Your task to perform on an android device: toggle javascript in the chrome app Image 0: 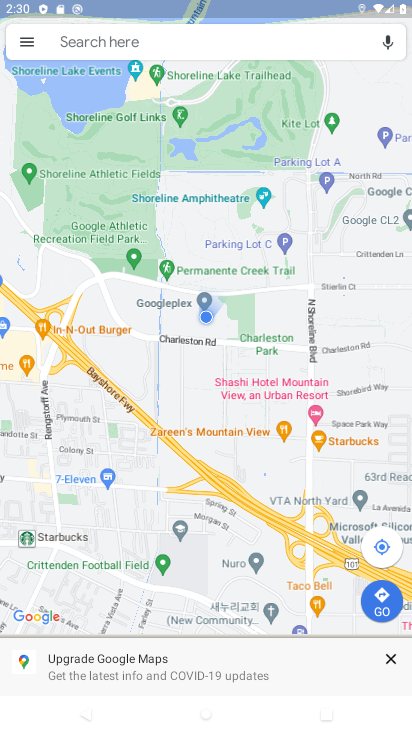
Step 0: press back button
Your task to perform on an android device: toggle javascript in the chrome app Image 1: 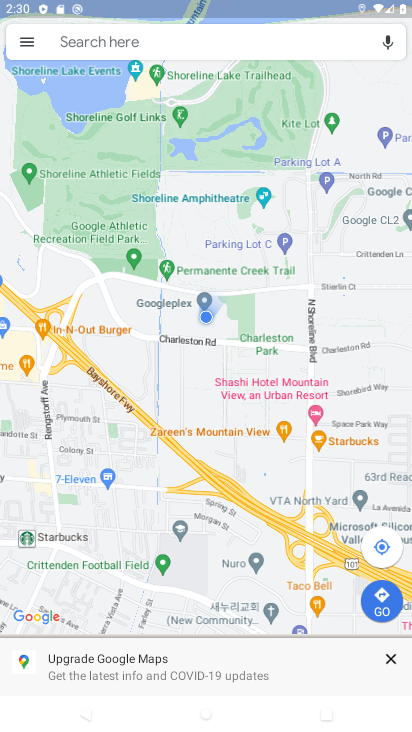
Step 1: press back button
Your task to perform on an android device: toggle javascript in the chrome app Image 2: 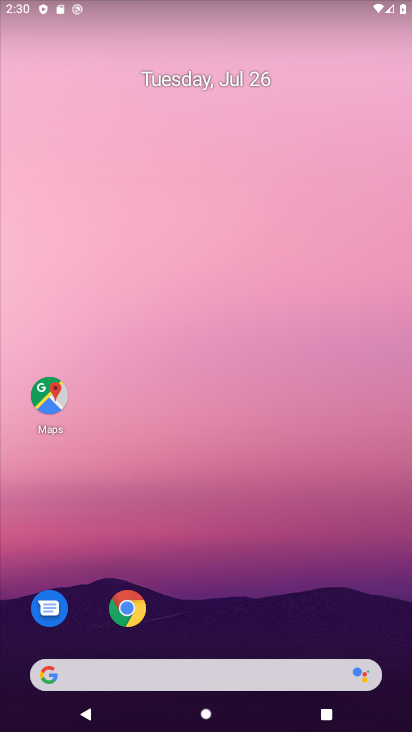
Step 2: drag from (231, 496) to (238, 64)
Your task to perform on an android device: toggle javascript in the chrome app Image 3: 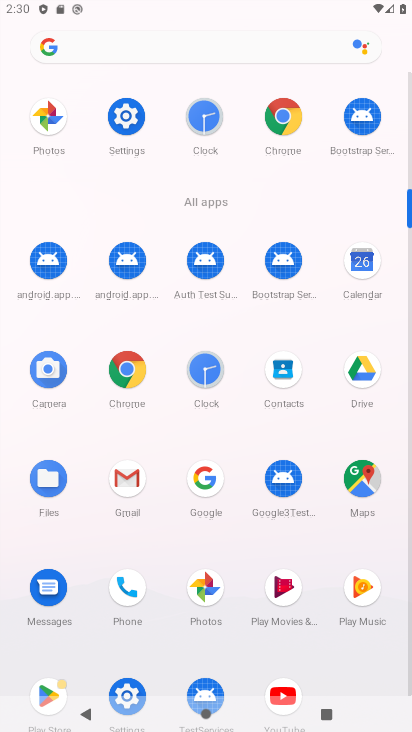
Step 3: click (283, 121)
Your task to perform on an android device: toggle javascript in the chrome app Image 4: 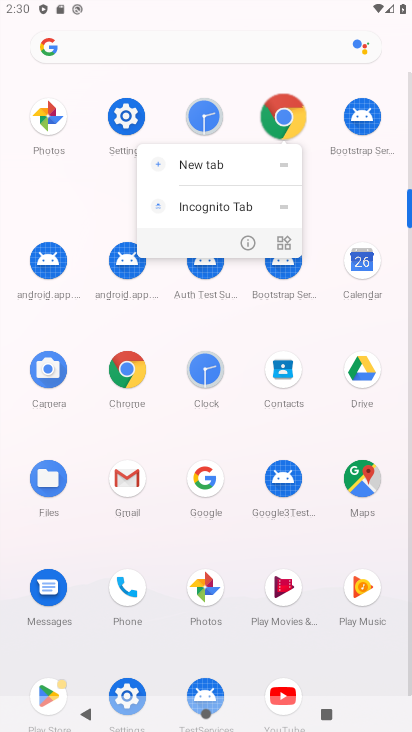
Step 4: click (283, 121)
Your task to perform on an android device: toggle javascript in the chrome app Image 5: 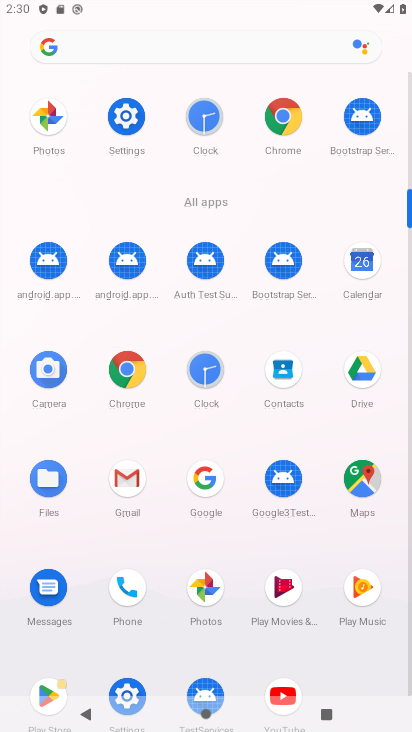
Step 5: click (283, 121)
Your task to perform on an android device: toggle javascript in the chrome app Image 6: 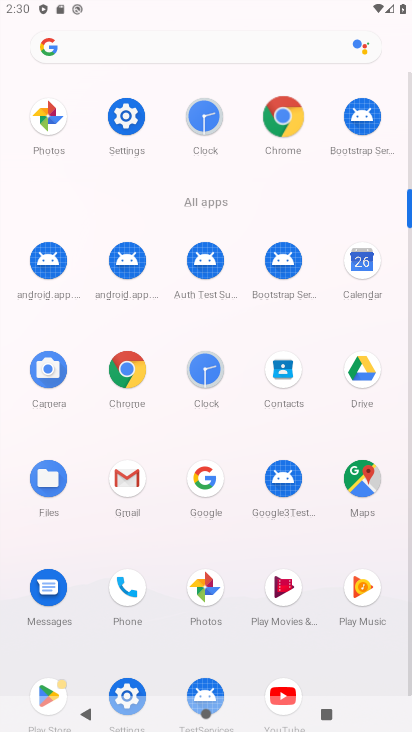
Step 6: click (285, 124)
Your task to perform on an android device: toggle javascript in the chrome app Image 7: 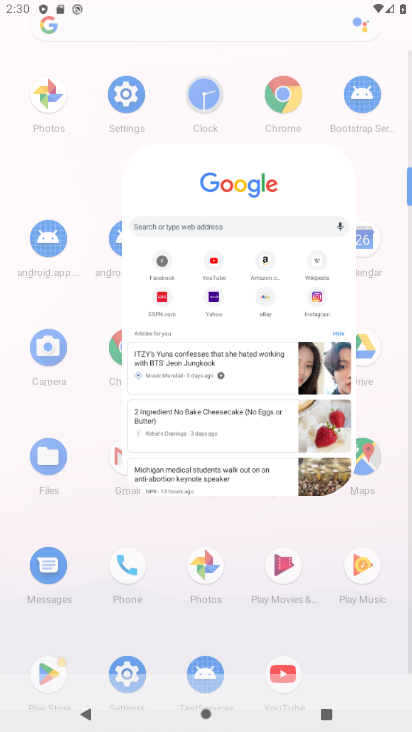
Step 7: click (285, 124)
Your task to perform on an android device: toggle javascript in the chrome app Image 8: 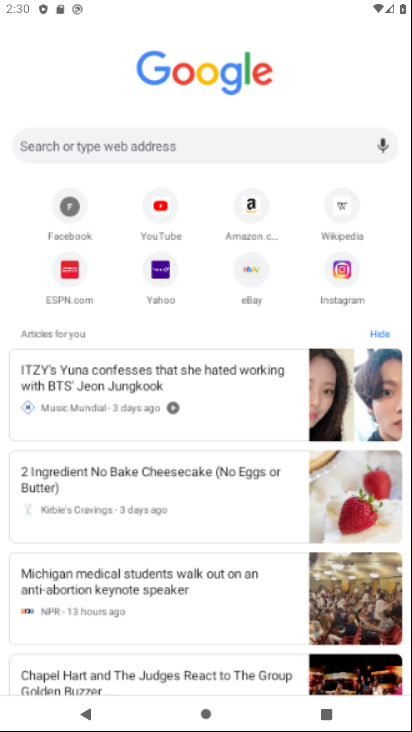
Step 8: click (285, 122)
Your task to perform on an android device: toggle javascript in the chrome app Image 9: 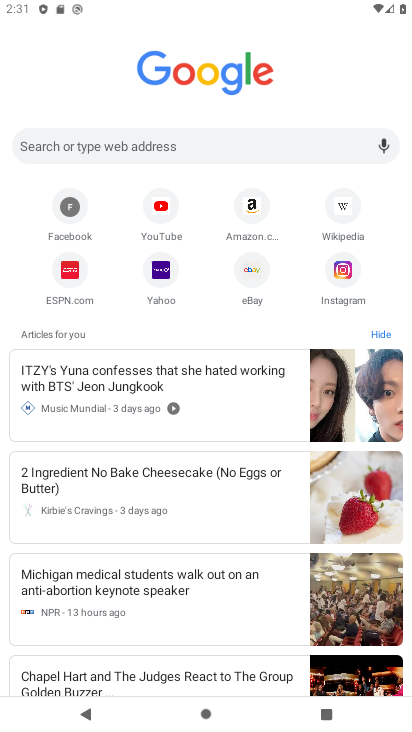
Step 9: drag from (323, 135) to (325, 339)
Your task to perform on an android device: toggle javascript in the chrome app Image 10: 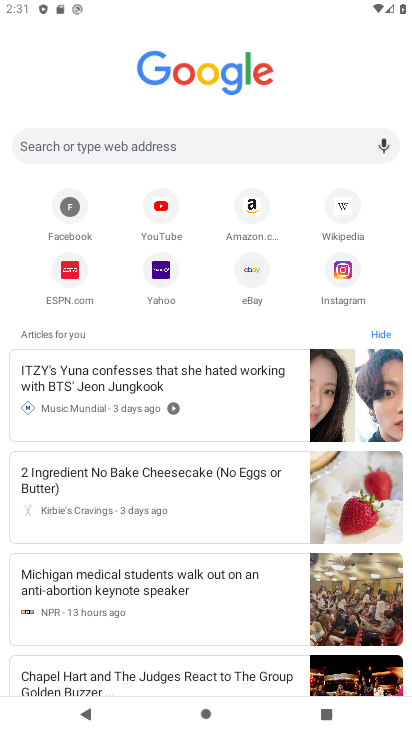
Step 10: drag from (356, 108) to (374, 245)
Your task to perform on an android device: toggle javascript in the chrome app Image 11: 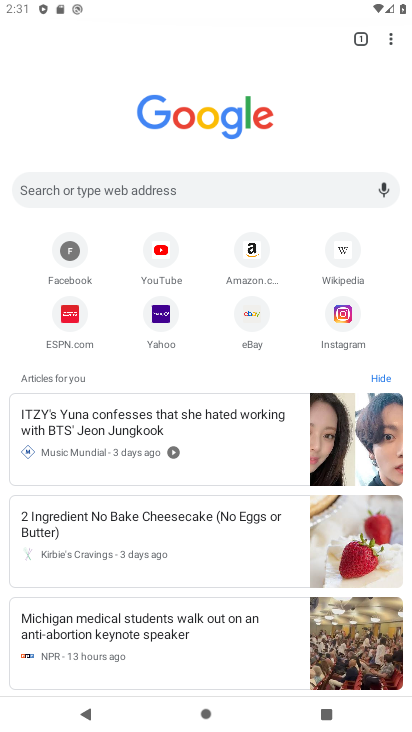
Step 11: drag from (353, 68) to (367, 289)
Your task to perform on an android device: toggle javascript in the chrome app Image 12: 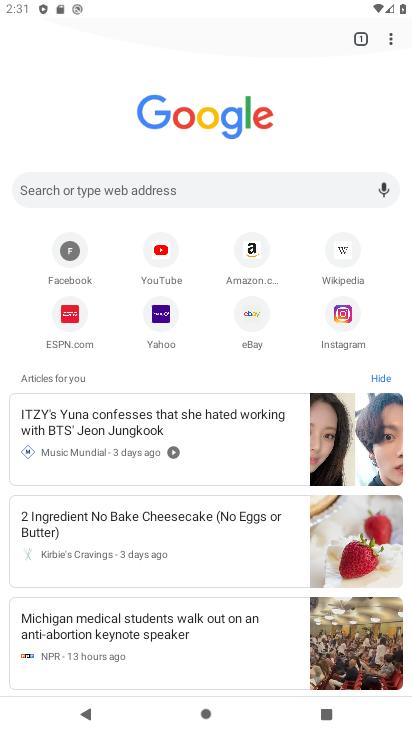
Step 12: click (317, 317)
Your task to perform on an android device: toggle javascript in the chrome app Image 13: 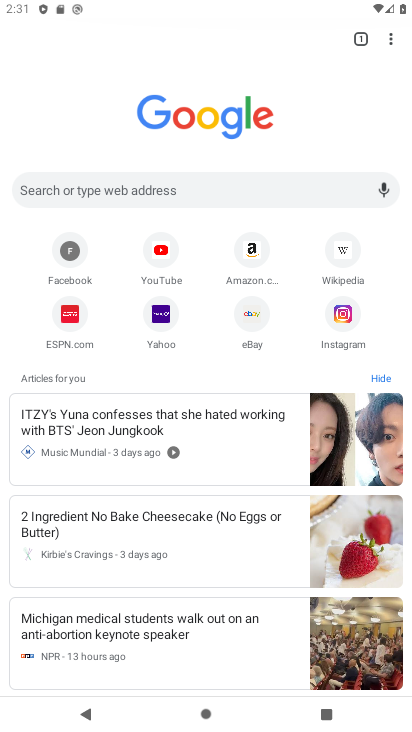
Step 13: drag from (319, 270) to (325, 339)
Your task to perform on an android device: toggle javascript in the chrome app Image 14: 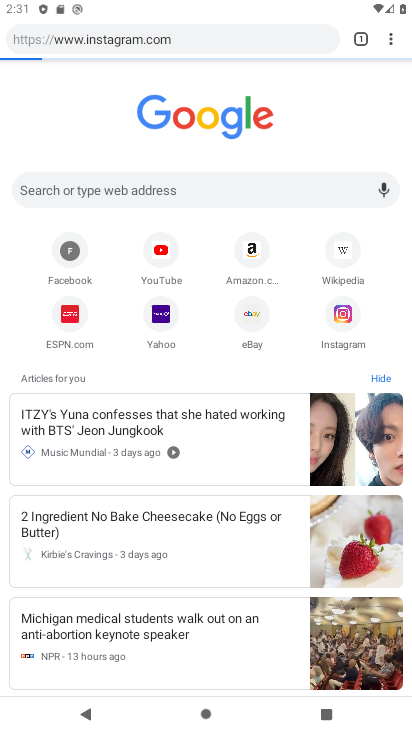
Step 14: click (393, 203)
Your task to perform on an android device: toggle javascript in the chrome app Image 15: 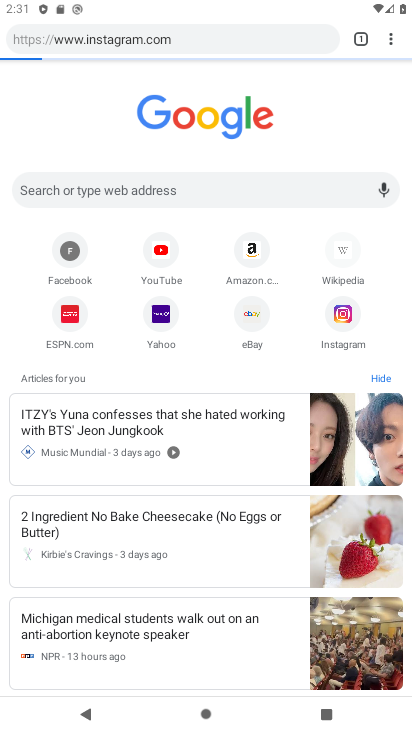
Step 15: click (334, 255)
Your task to perform on an android device: toggle javascript in the chrome app Image 16: 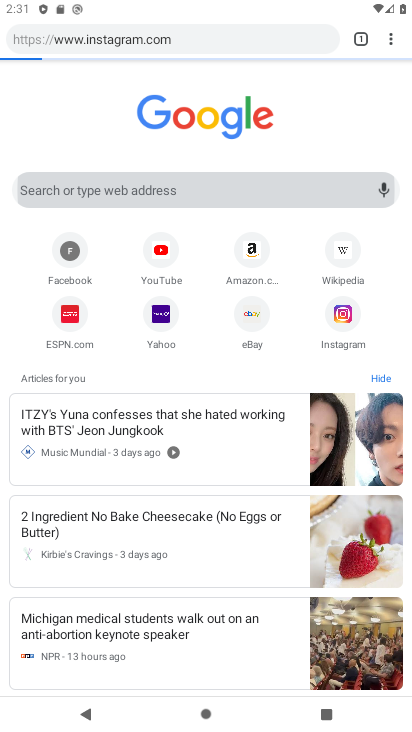
Step 16: drag from (392, 42) to (182, 464)
Your task to perform on an android device: toggle javascript in the chrome app Image 17: 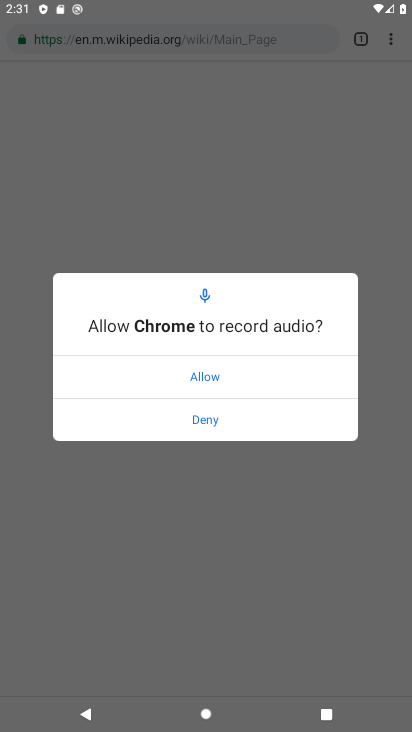
Step 17: click (206, 375)
Your task to perform on an android device: toggle javascript in the chrome app Image 18: 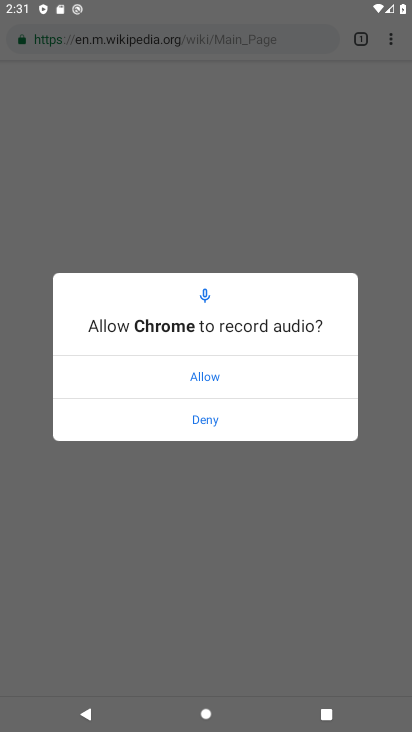
Step 18: click (210, 378)
Your task to perform on an android device: toggle javascript in the chrome app Image 19: 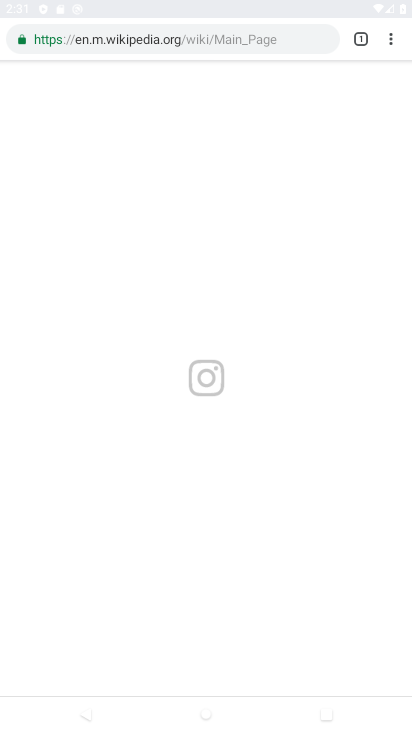
Step 19: click (211, 378)
Your task to perform on an android device: toggle javascript in the chrome app Image 20: 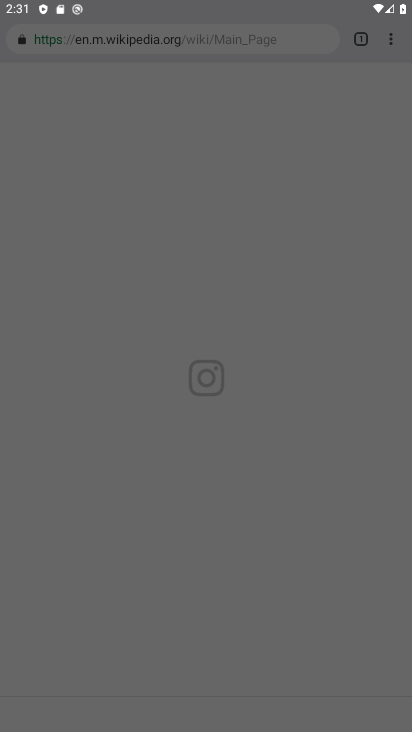
Step 20: click (388, 40)
Your task to perform on an android device: toggle javascript in the chrome app Image 21: 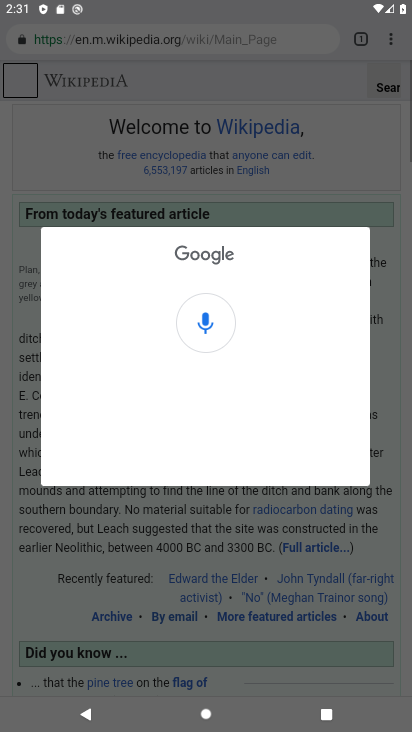
Step 21: drag from (387, 42) to (328, 182)
Your task to perform on an android device: toggle javascript in the chrome app Image 22: 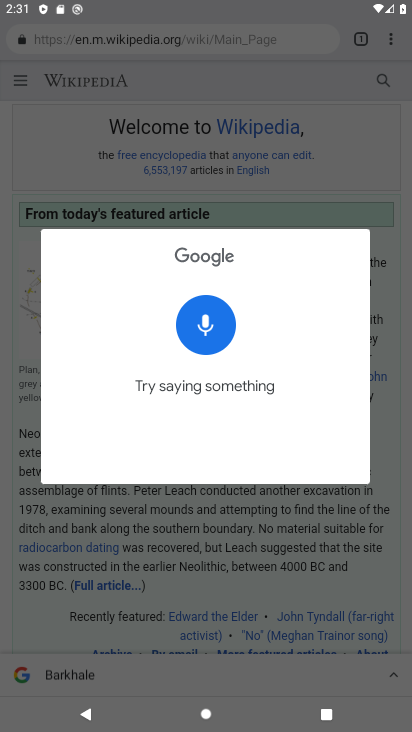
Step 22: click (330, 173)
Your task to perform on an android device: toggle javascript in the chrome app Image 23: 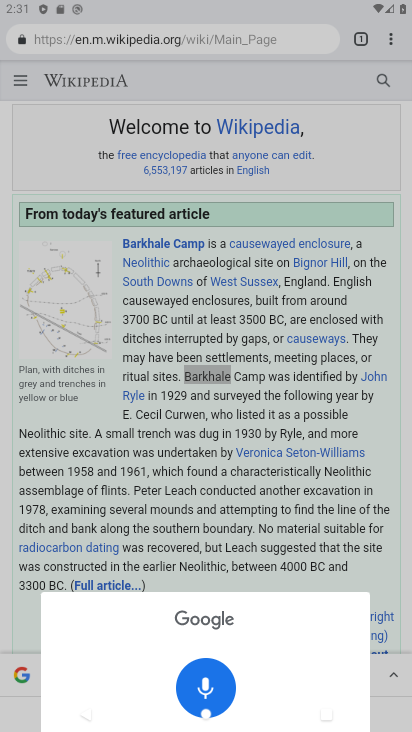
Step 23: drag from (387, 35) to (248, 473)
Your task to perform on an android device: toggle javascript in the chrome app Image 24: 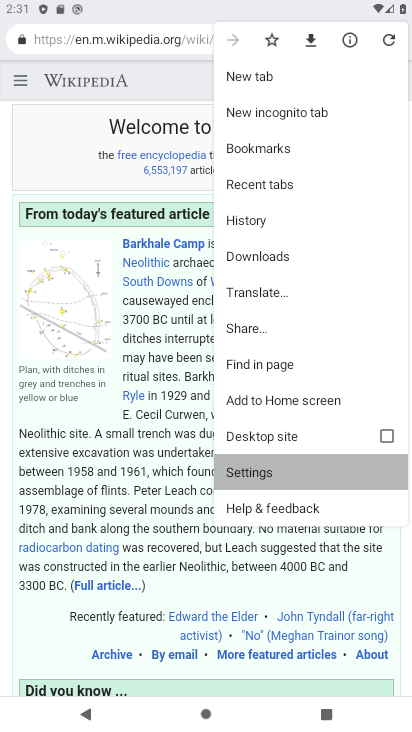
Step 24: click (248, 465)
Your task to perform on an android device: toggle javascript in the chrome app Image 25: 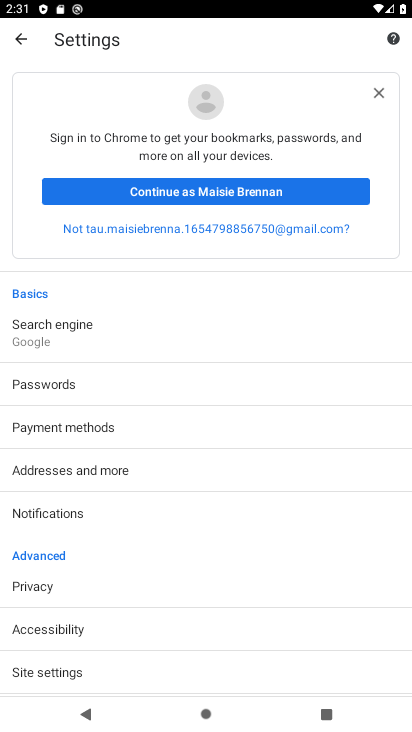
Step 25: drag from (115, 551) to (99, 139)
Your task to perform on an android device: toggle javascript in the chrome app Image 26: 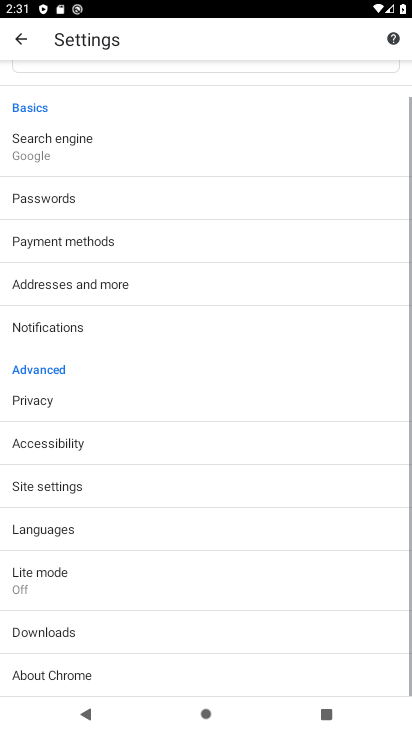
Step 26: drag from (171, 624) to (183, 240)
Your task to perform on an android device: toggle javascript in the chrome app Image 27: 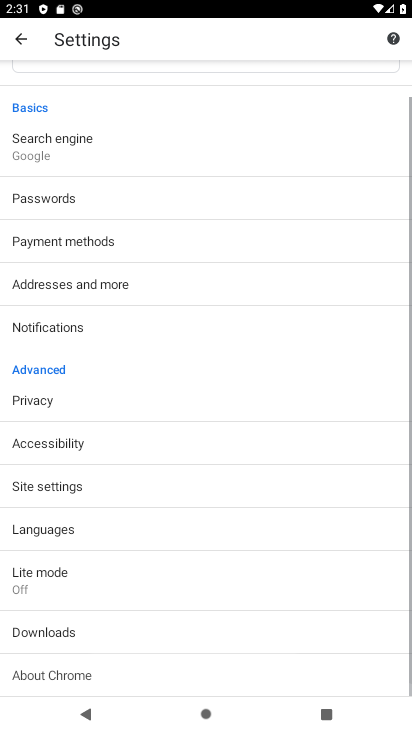
Step 27: drag from (202, 409) to (202, 304)
Your task to perform on an android device: toggle javascript in the chrome app Image 28: 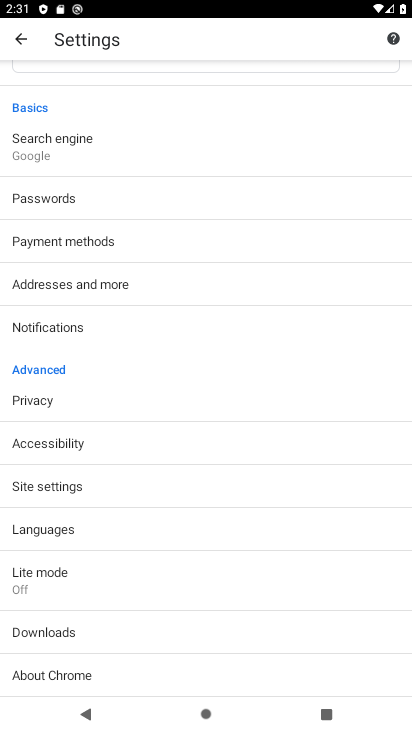
Step 28: drag from (92, 450) to (74, 212)
Your task to perform on an android device: toggle javascript in the chrome app Image 29: 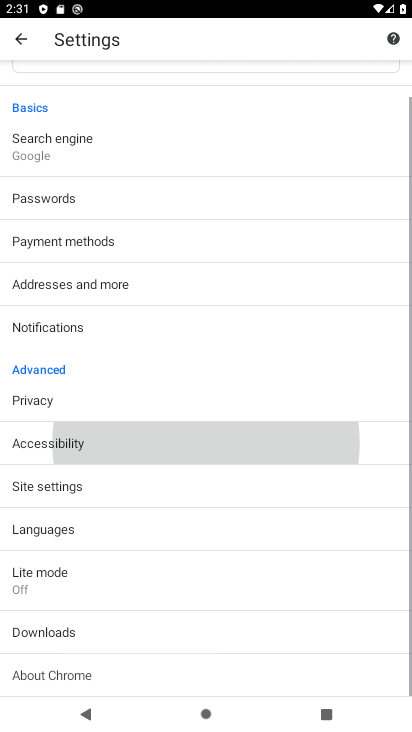
Step 29: drag from (123, 550) to (111, 305)
Your task to perform on an android device: toggle javascript in the chrome app Image 30: 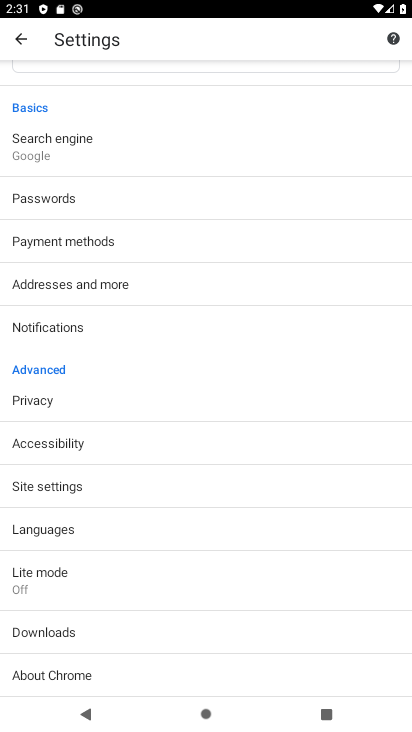
Step 30: click (32, 481)
Your task to perform on an android device: toggle javascript in the chrome app Image 31: 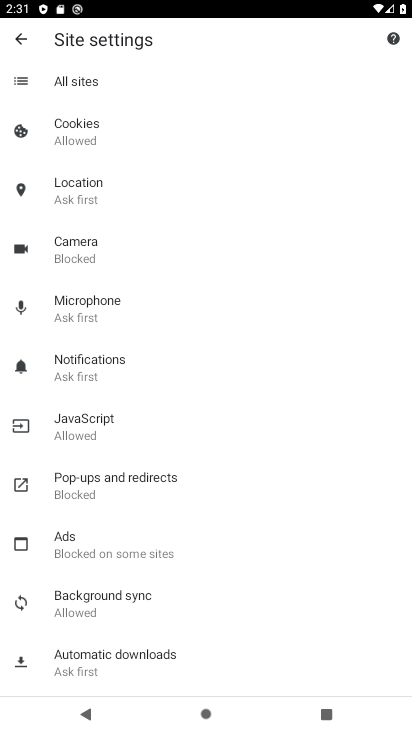
Step 31: click (76, 424)
Your task to perform on an android device: toggle javascript in the chrome app Image 32: 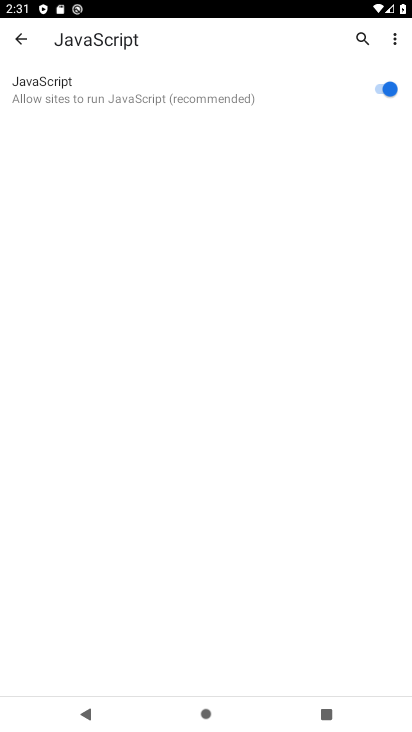
Step 32: task complete